Your task to perform on an android device: Clear the cart on newegg.com. Search for razer nari on newegg.com, select the first entry, and add it to the cart. Image 0: 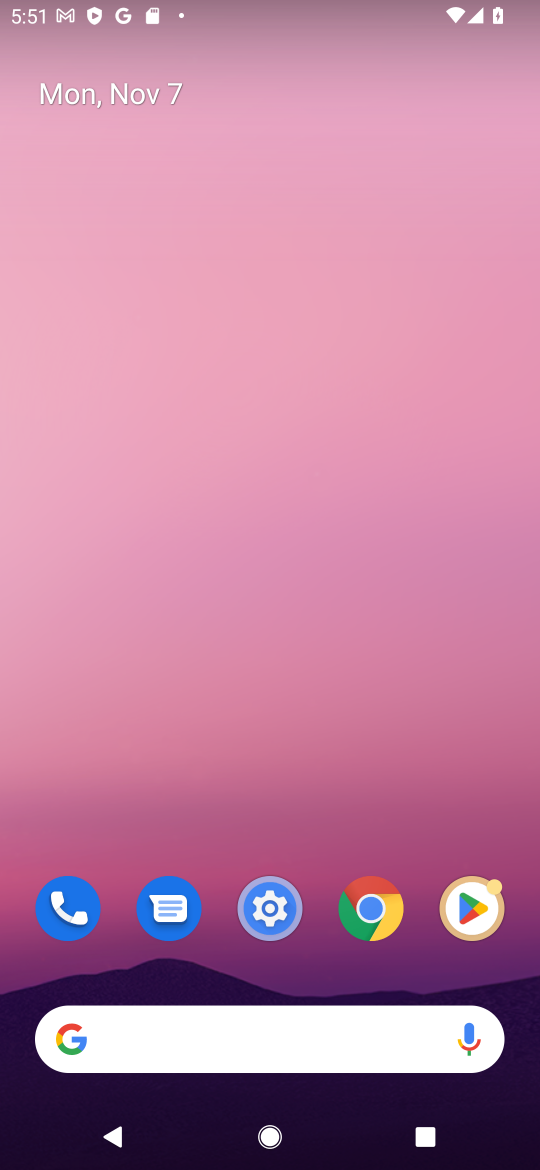
Step 0: click (152, 1035)
Your task to perform on an android device: Clear the cart on newegg.com. Search for razer nari on newegg.com, select the first entry, and add it to the cart. Image 1: 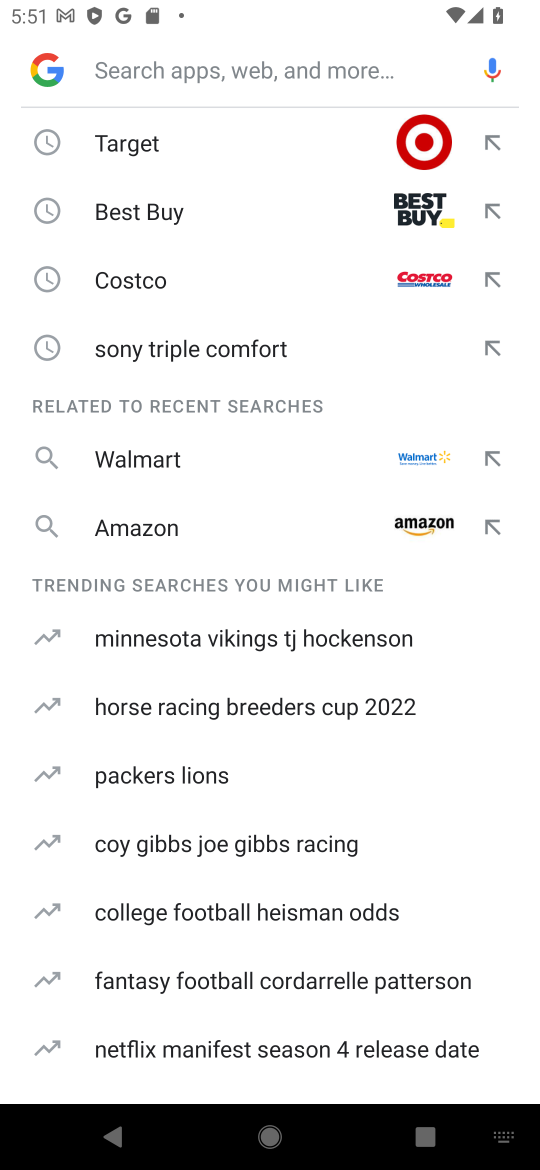
Step 1: type "newegg"
Your task to perform on an android device: Clear the cart on newegg.com. Search for razer nari on newegg.com, select the first entry, and add it to the cart. Image 2: 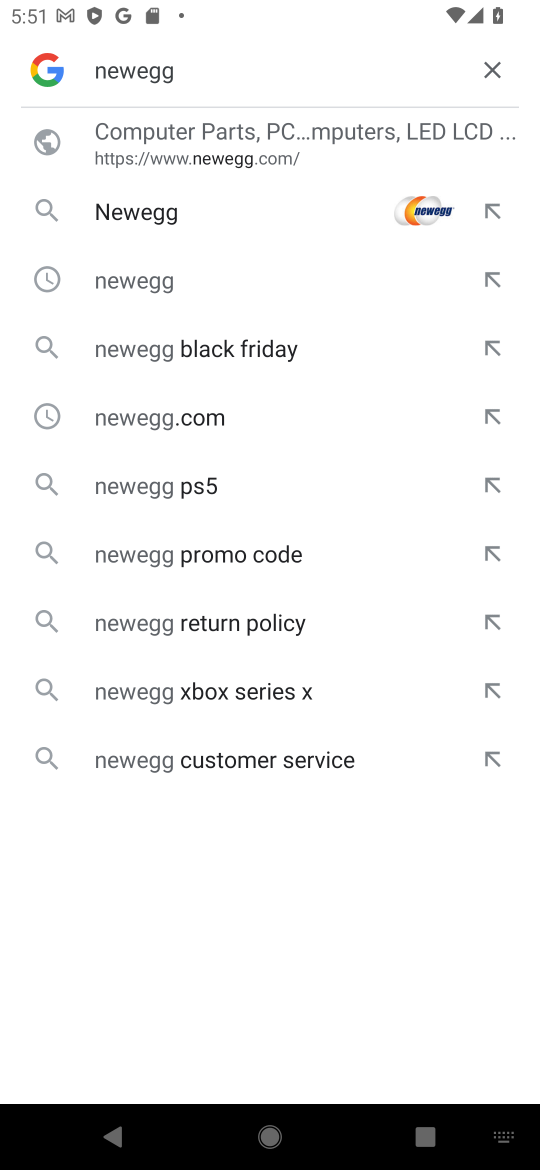
Step 2: click (254, 173)
Your task to perform on an android device: Clear the cart on newegg.com. Search for razer nari on newegg.com, select the first entry, and add it to the cart. Image 3: 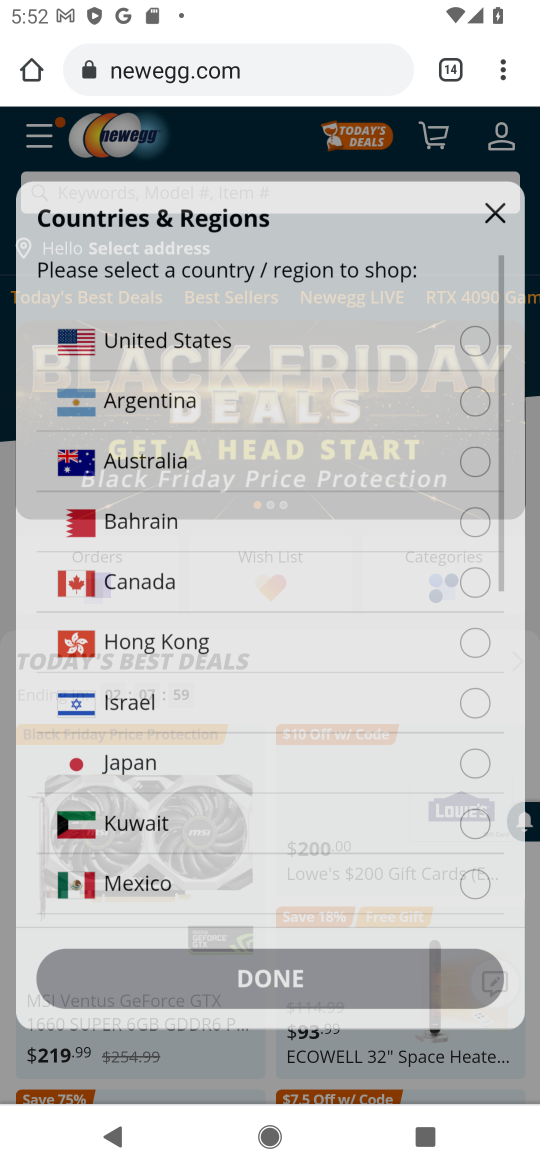
Step 3: click (232, 203)
Your task to perform on an android device: Clear the cart on newegg.com. Search for razer nari on newegg.com, select the first entry, and add it to the cart. Image 4: 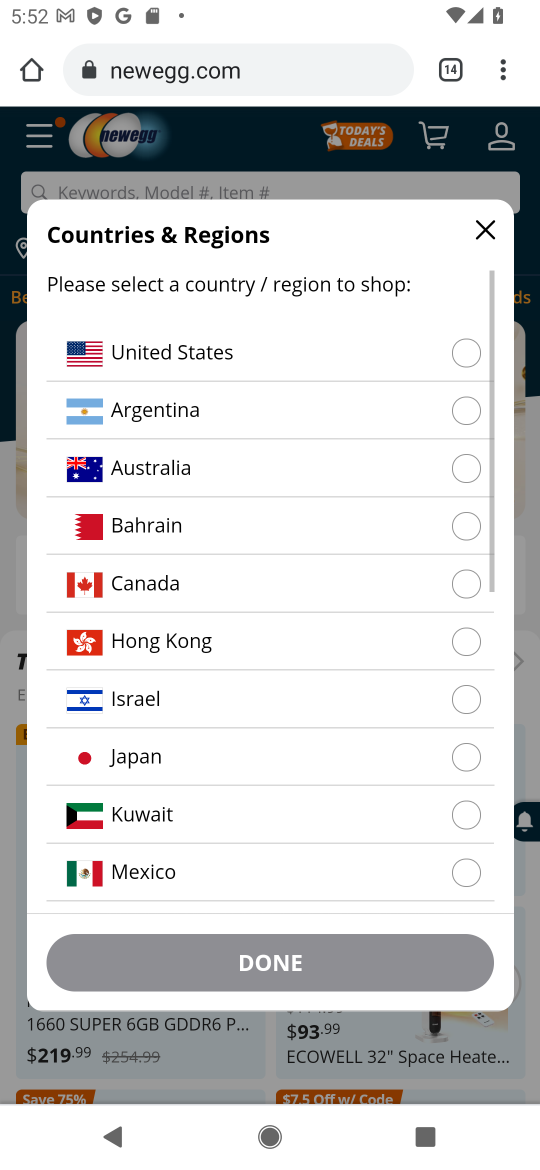
Step 4: click (184, 358)
Your task to perform on an android device: Clear the cart on newegg.com. Search for razer nari on newegg.com, select the first entry, and add it to the cart. Image 5: 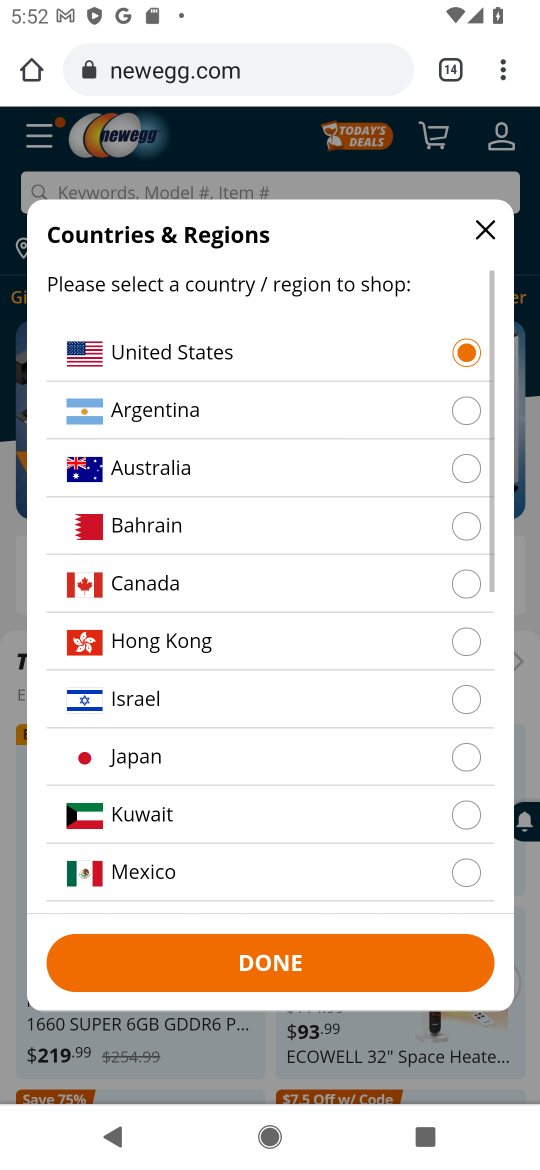
Step 5: click (285, 962)
Your task to perform on an android device: Clear the cart on newegg.com. Search for razer nari on newegg.com, select the first entry, and add it to the cart. Image 6: 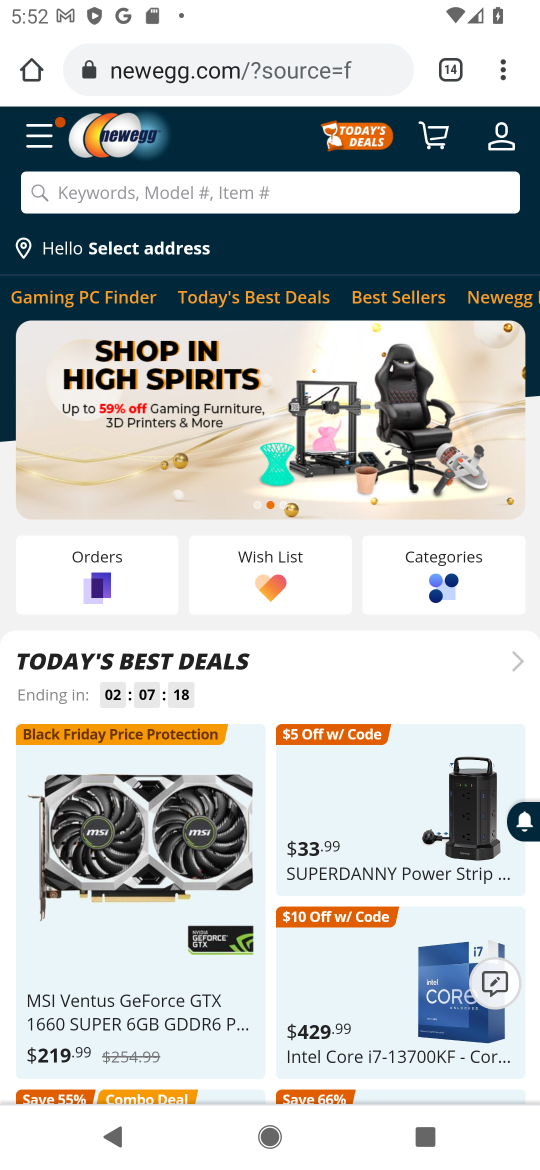
Step 6: click (124, 206)
Your task to perform on an android device: Clear the cart on newegg.com. Search for razer nari on newegg.com, select the first entry, and add it to the cart. Image 7: 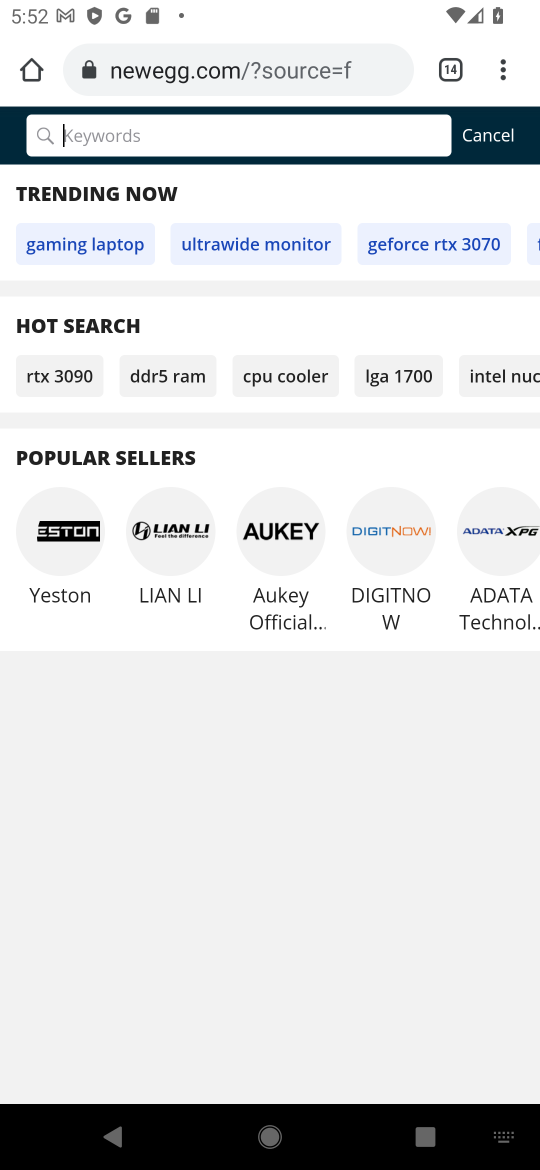
Step 7: type "razer"
Your task to perform on an android device: Clear the cart on newegg.com. Search for razer nari on newegg.com, select the first entry, and add it to the cart. Image 8: 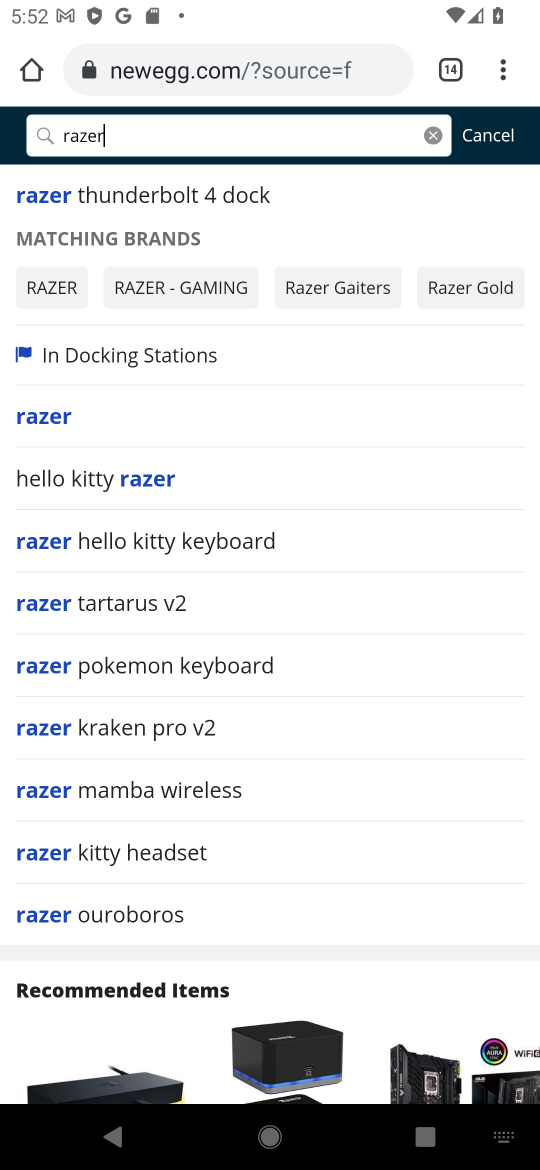
Step 8: click (135, 436)
Your task to perform on an android device: Clear the cart on newegg.com. Search for razer nari on newegg.com, select the first entry, and add it to the cart. Image 9: 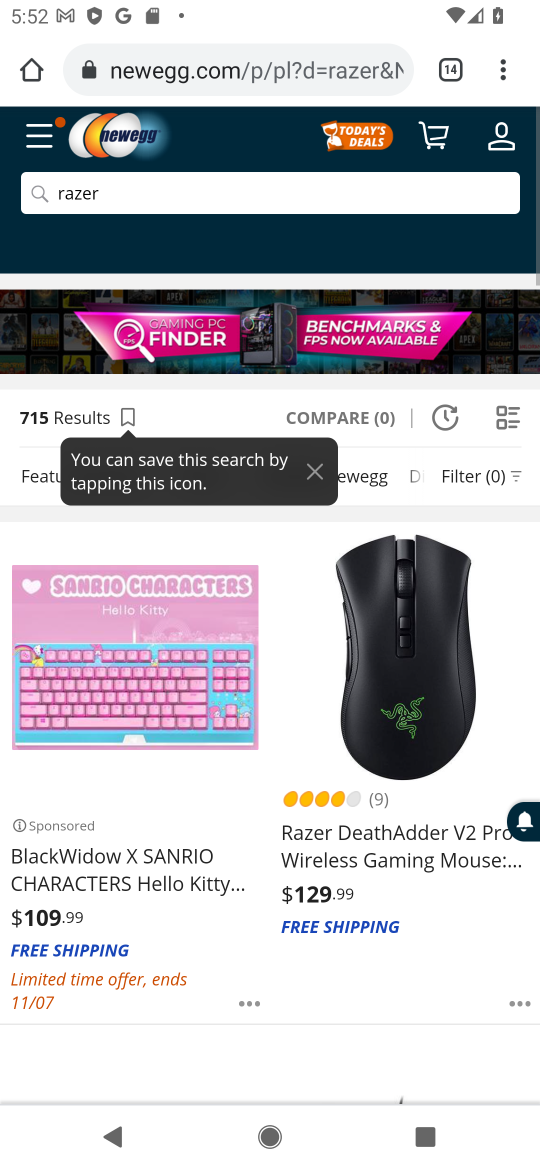
Step 9: click (351, 891)
Your task to perform on an android device: Clear the cart on newegg.com. Search for razer nari on newegg.com, select the first entry, and add it to the cart. Image 10: 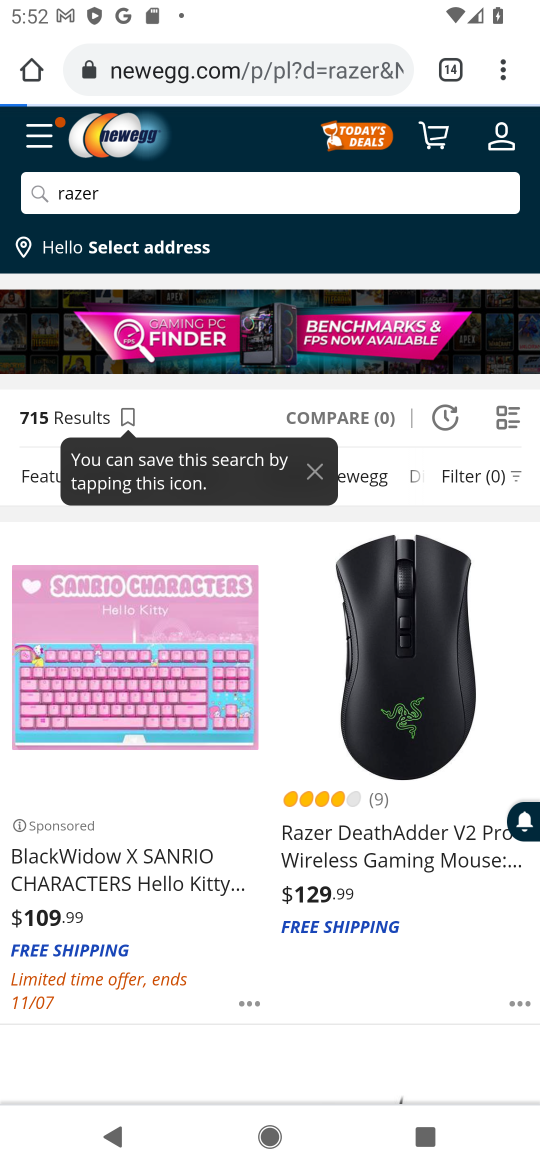
Step 10: task complete